Your task to perform on an android device: What's the latest news in space? Image 0: 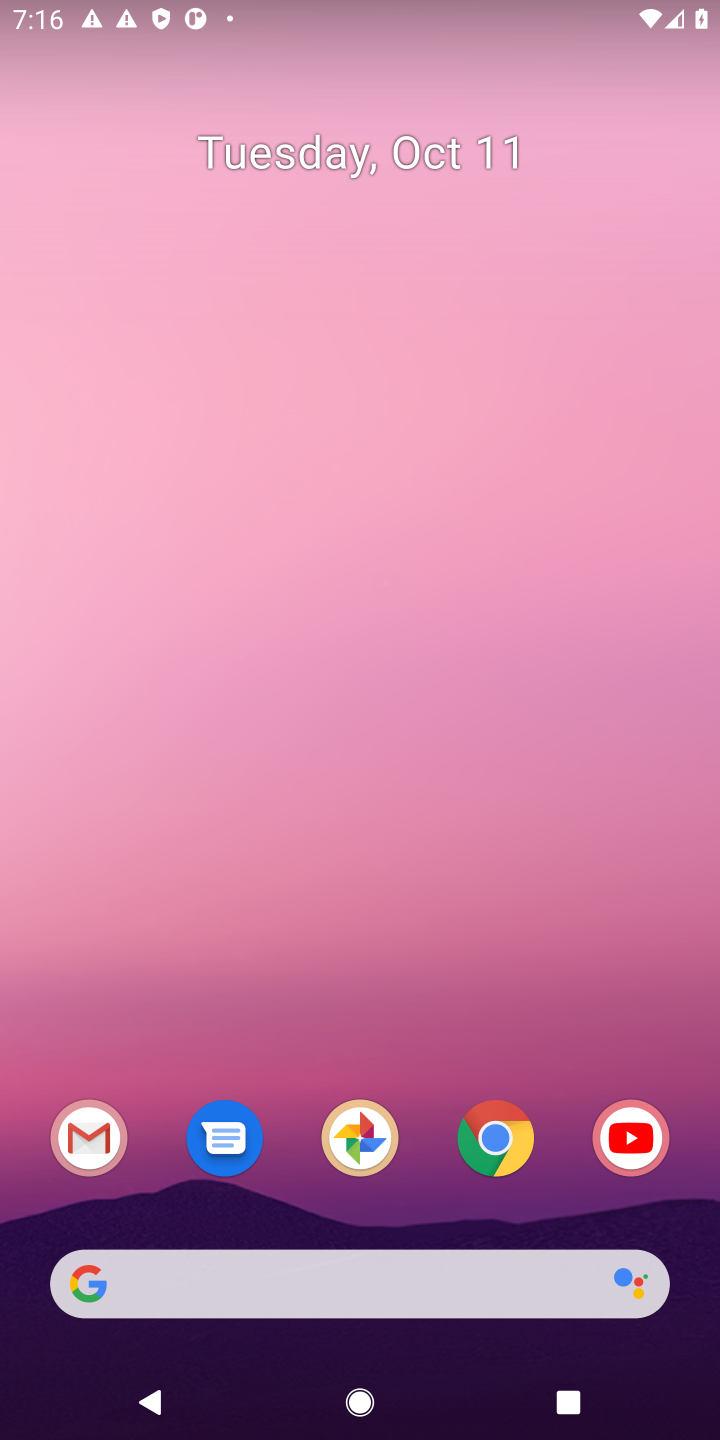
Step 0: click (196, 1291)
Your task to perform on an android device: What's the latest news in space? Image 1: 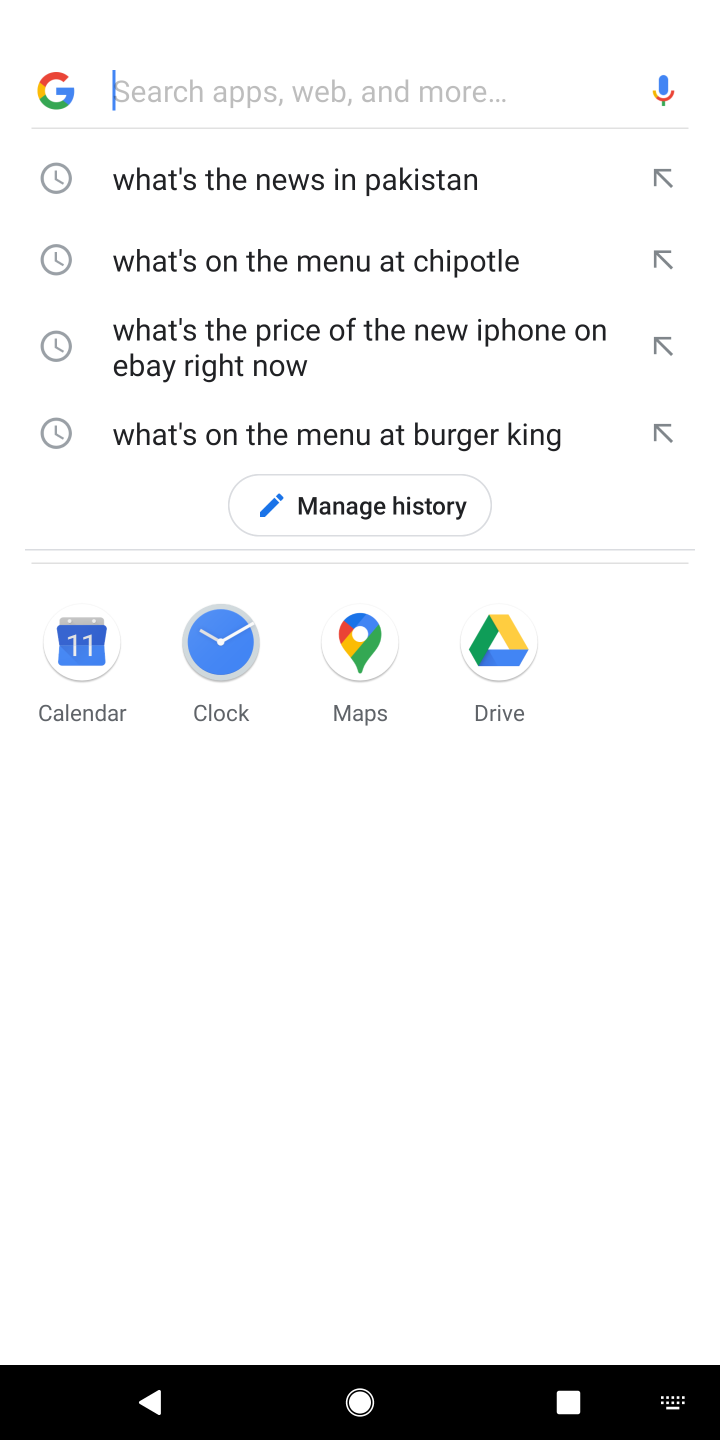
Step 1: type "What's the latest news in space?"
Your task to perform on an android device: What's the latest news in space? Image 2: 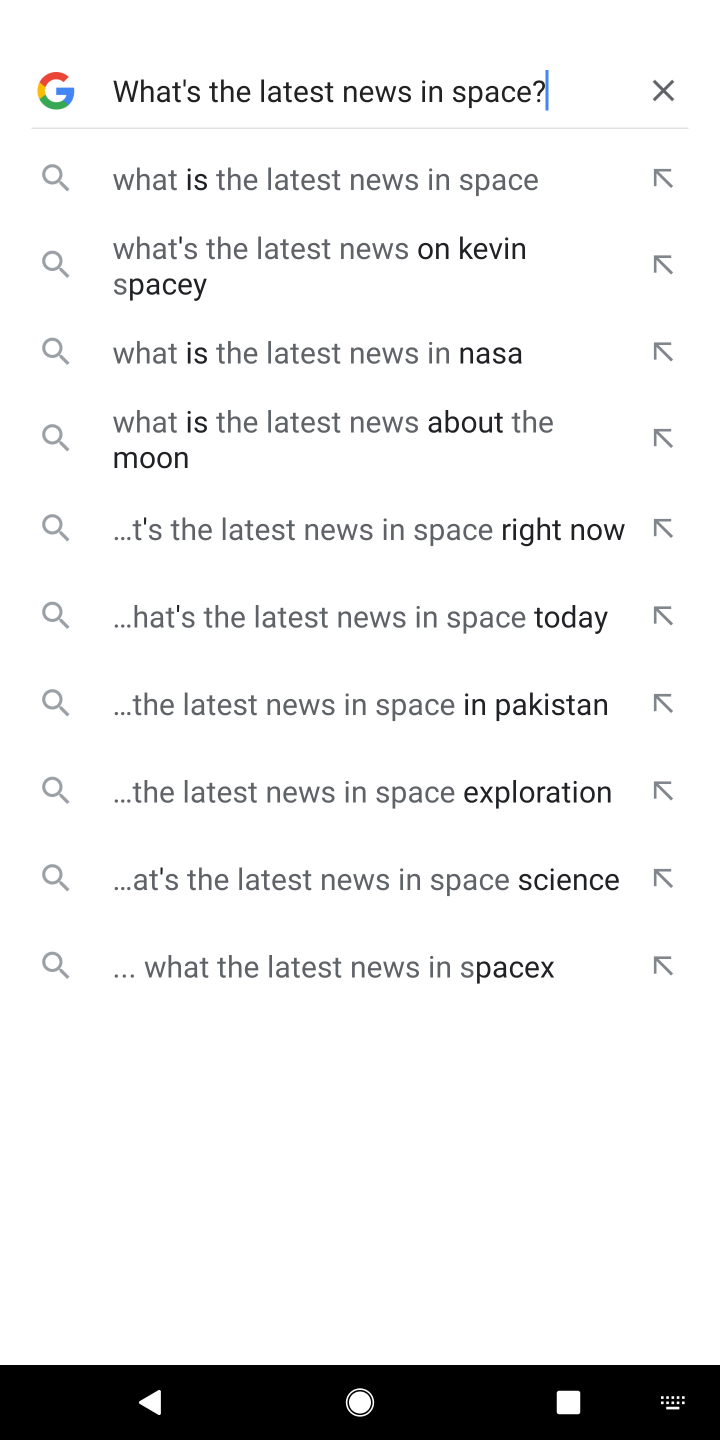
Step 2: click (235, 172)
Your task to perform on an android device: What's the latest news in space? Image 3: 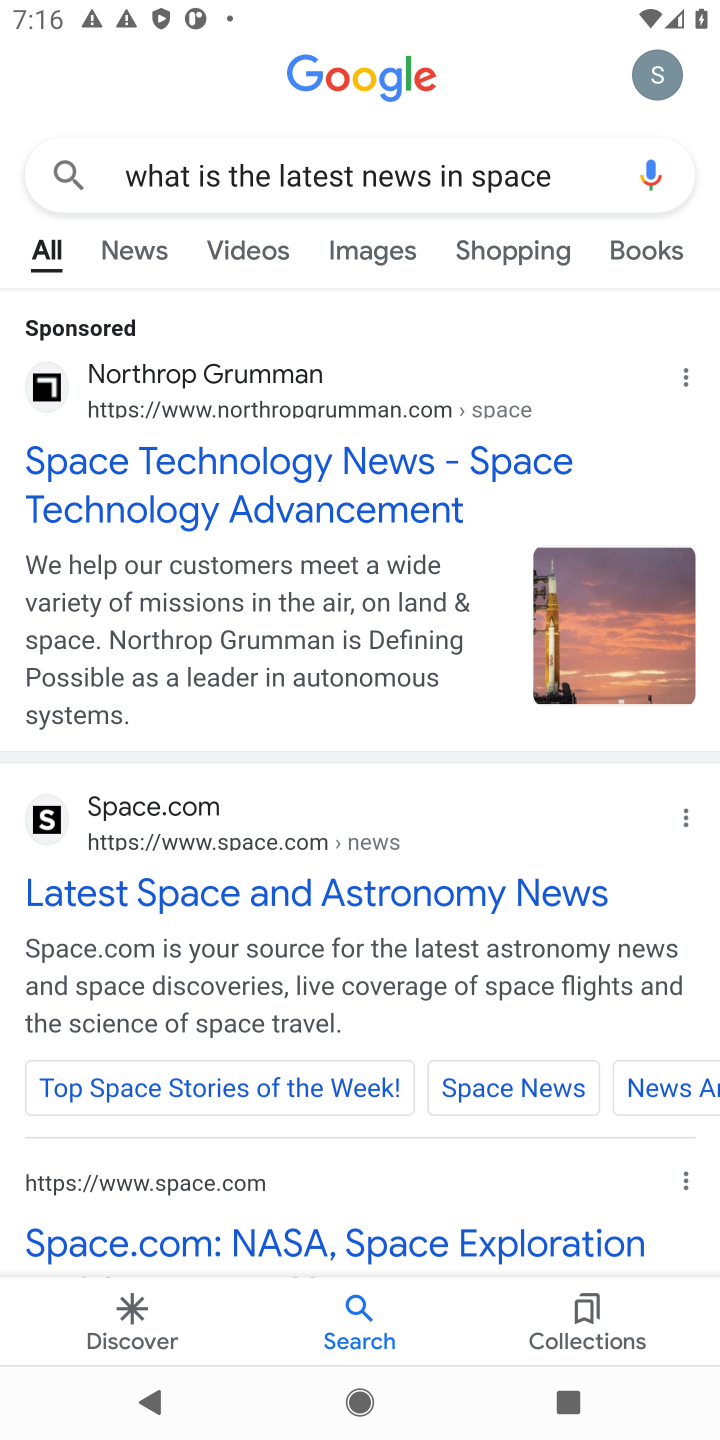
Step 3: click (241, 471)
Your task to perform on an android device: What's the latest news in space? Image 4: 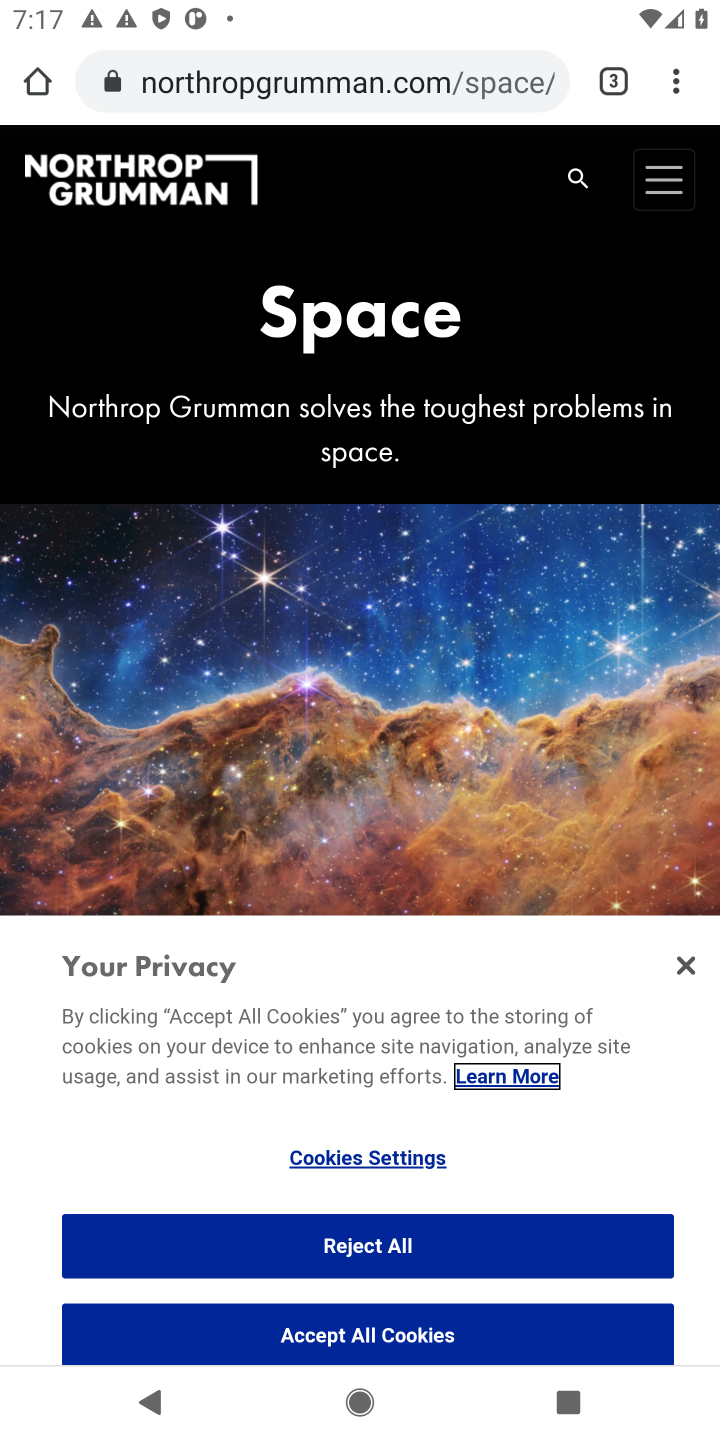
Step 4: click (300, 1334)
Your task to perform on an android device: What's the latest news in space? Image 5: 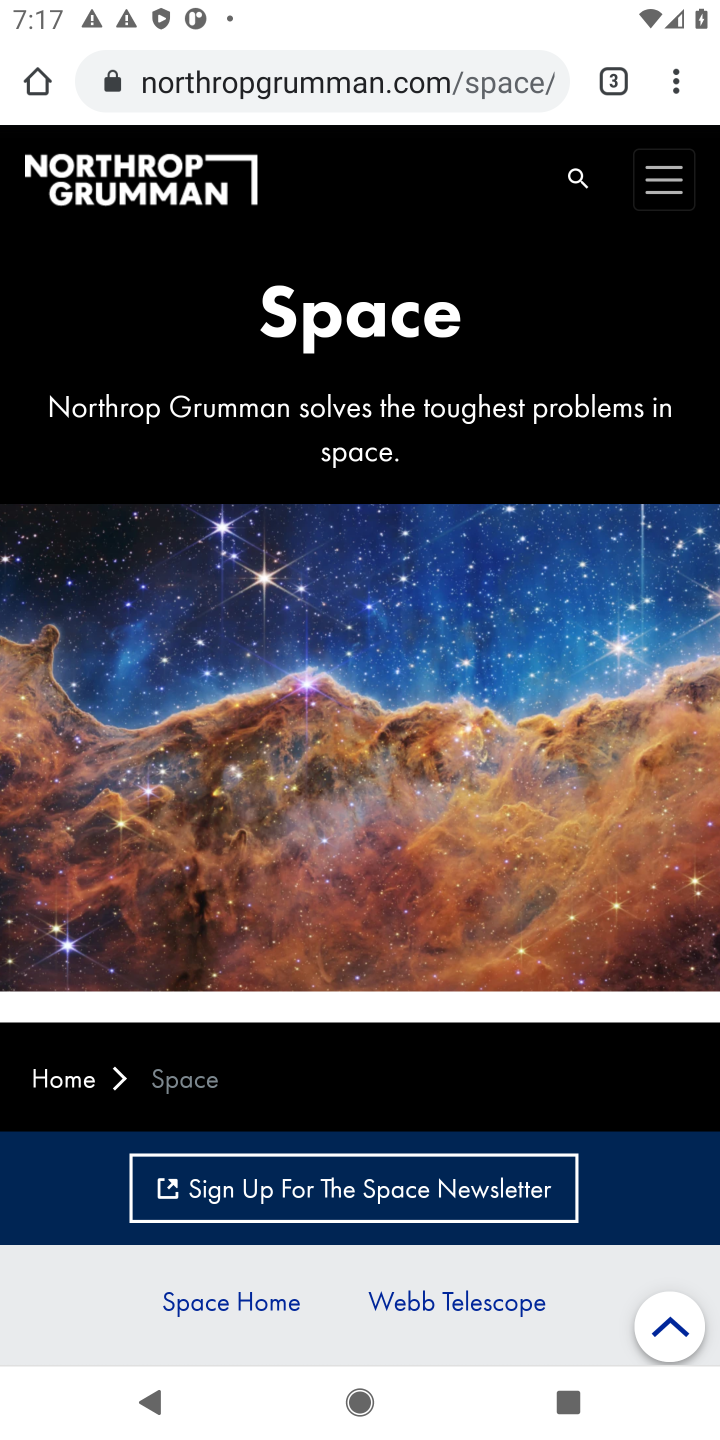
Step 5: drag from (348, 1050) to (316, 678)
Your task to perform on an android device: What's the latest news in space? Image 6: 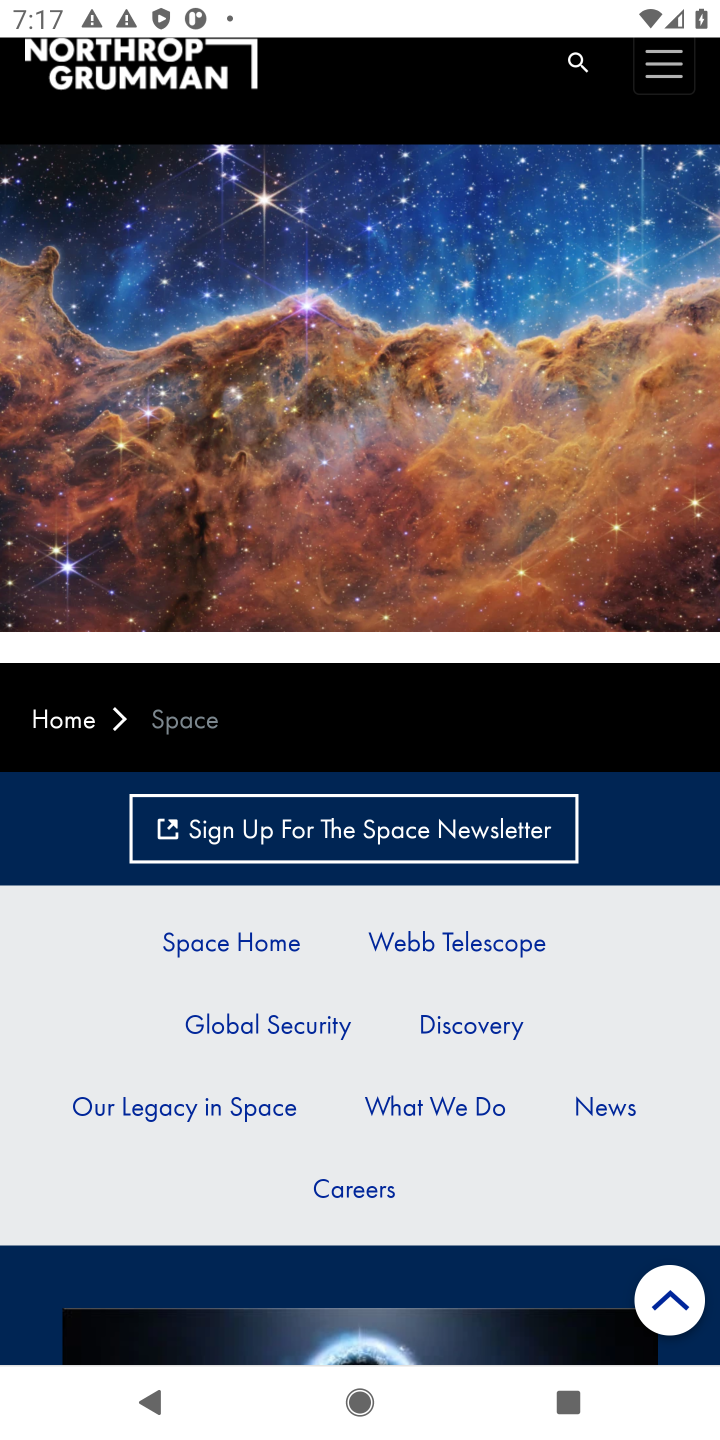
Step 6: drag from (322, 1064) to (322, 614)
Your task to perform on an android device: What's the latest news in space? Image 7: 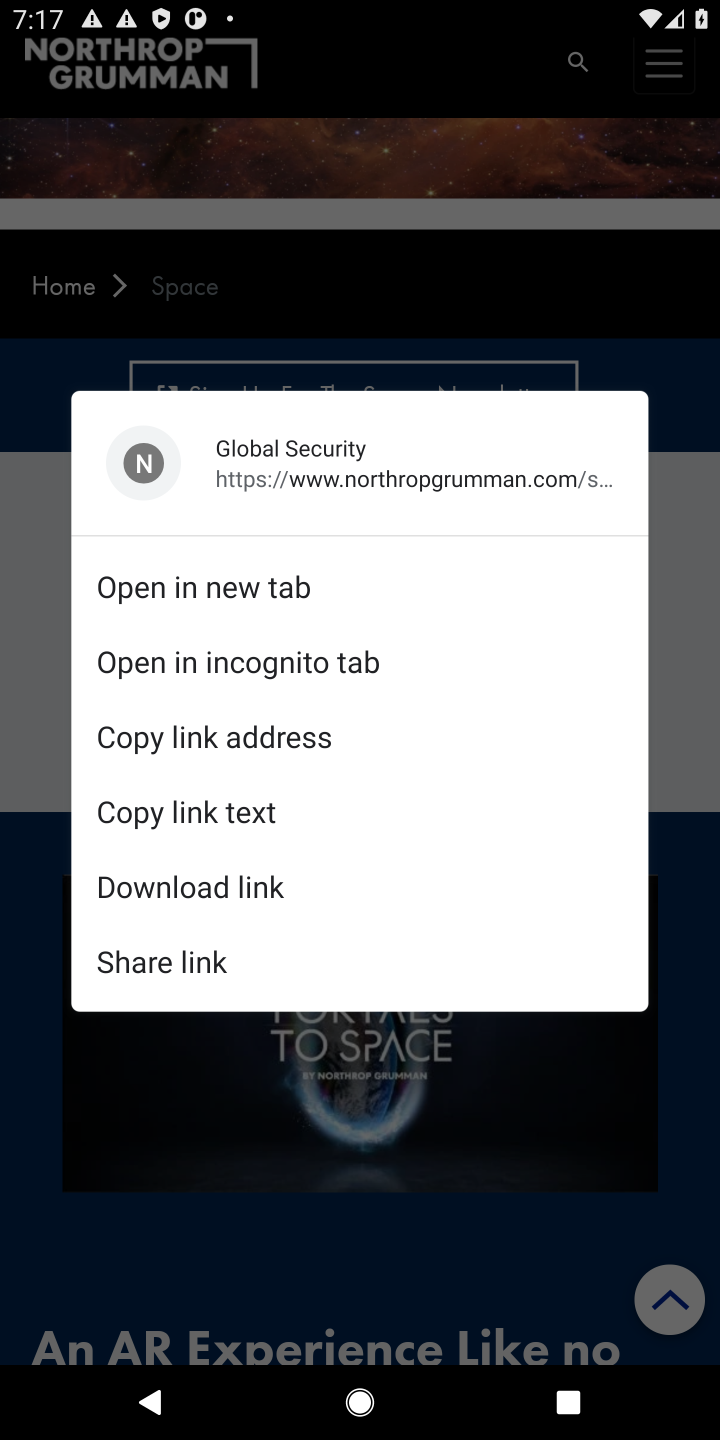
Step 7: click (517, 1075)
Your task to perform on an android device: What's the latest news in space? Image 8: 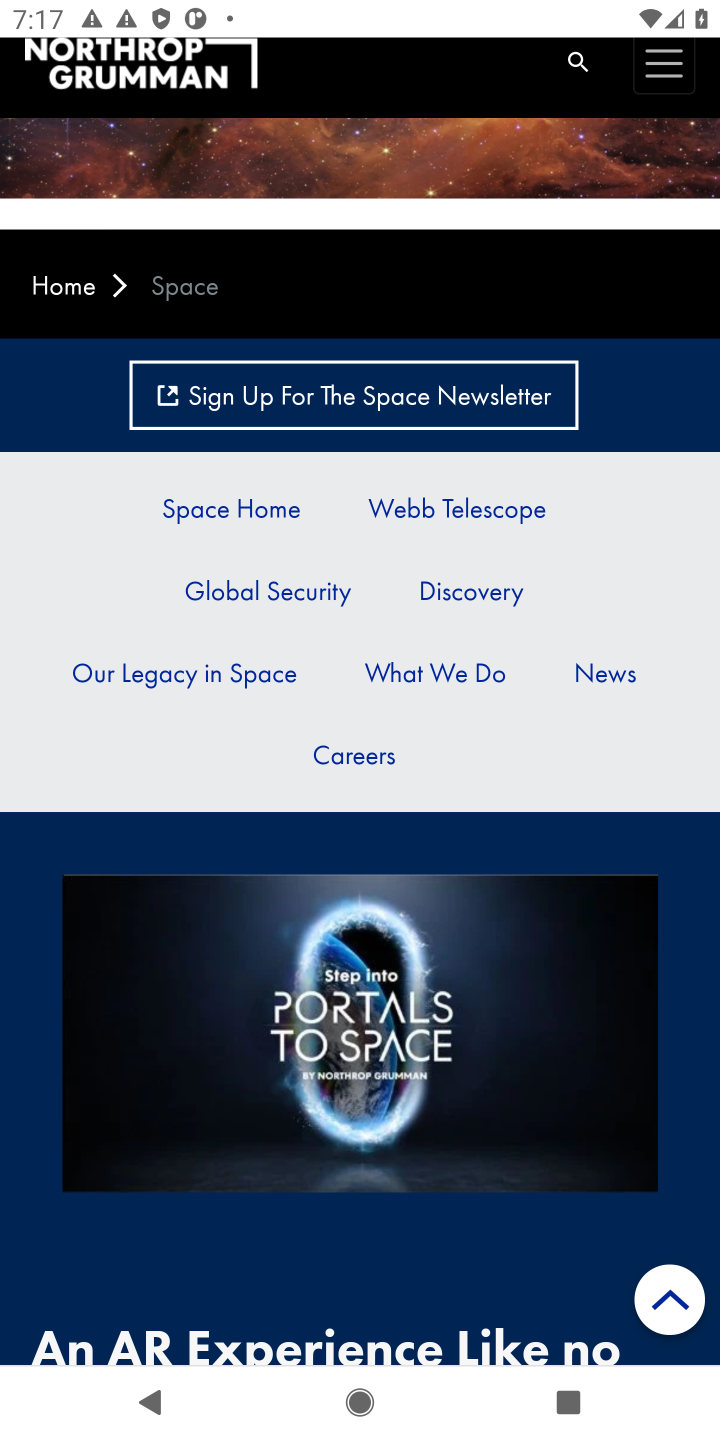
Step 8: drag from (477, 1050) to (375, 531)
Your task to perform on an android device: What's the latest news in space? Image 9: 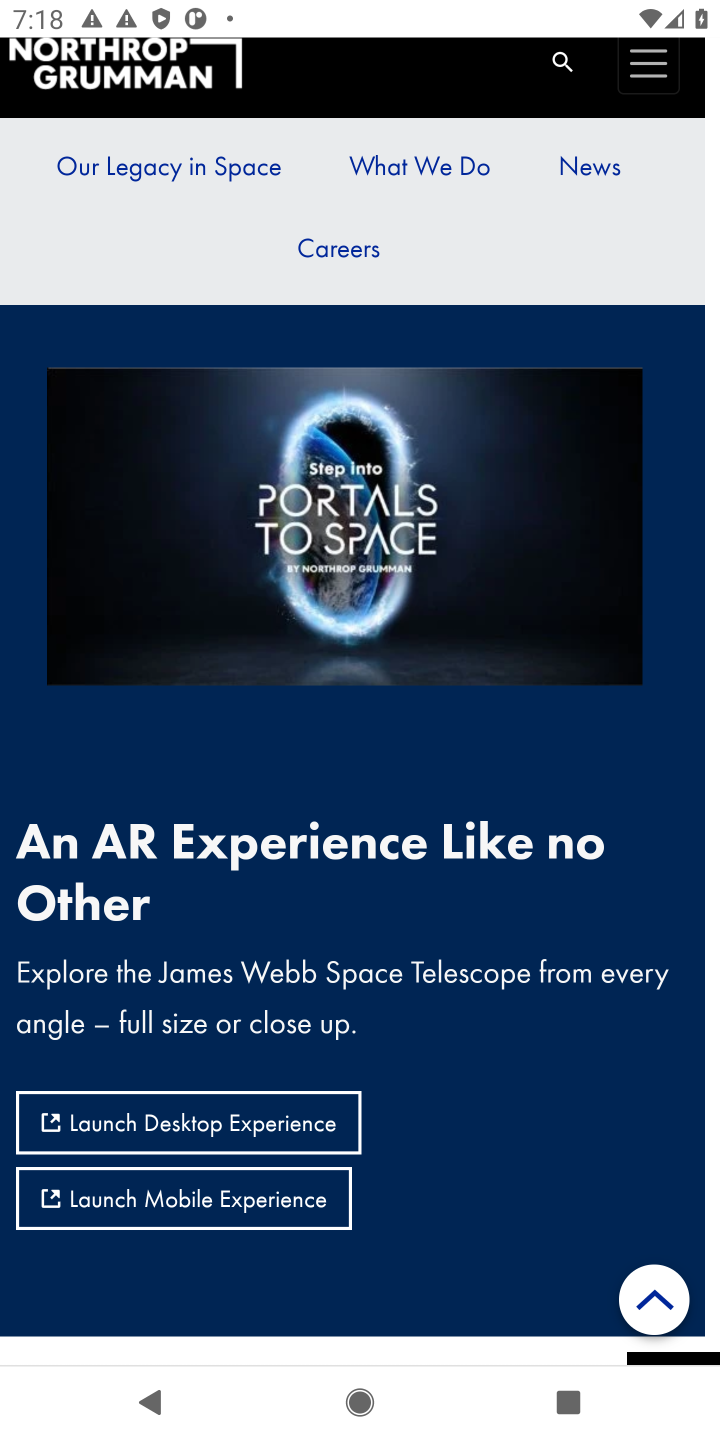
Step 9: drag from (524, 261) to (589, 686)
Your task to perform on an android device: What's the latest news in space? Image 10: 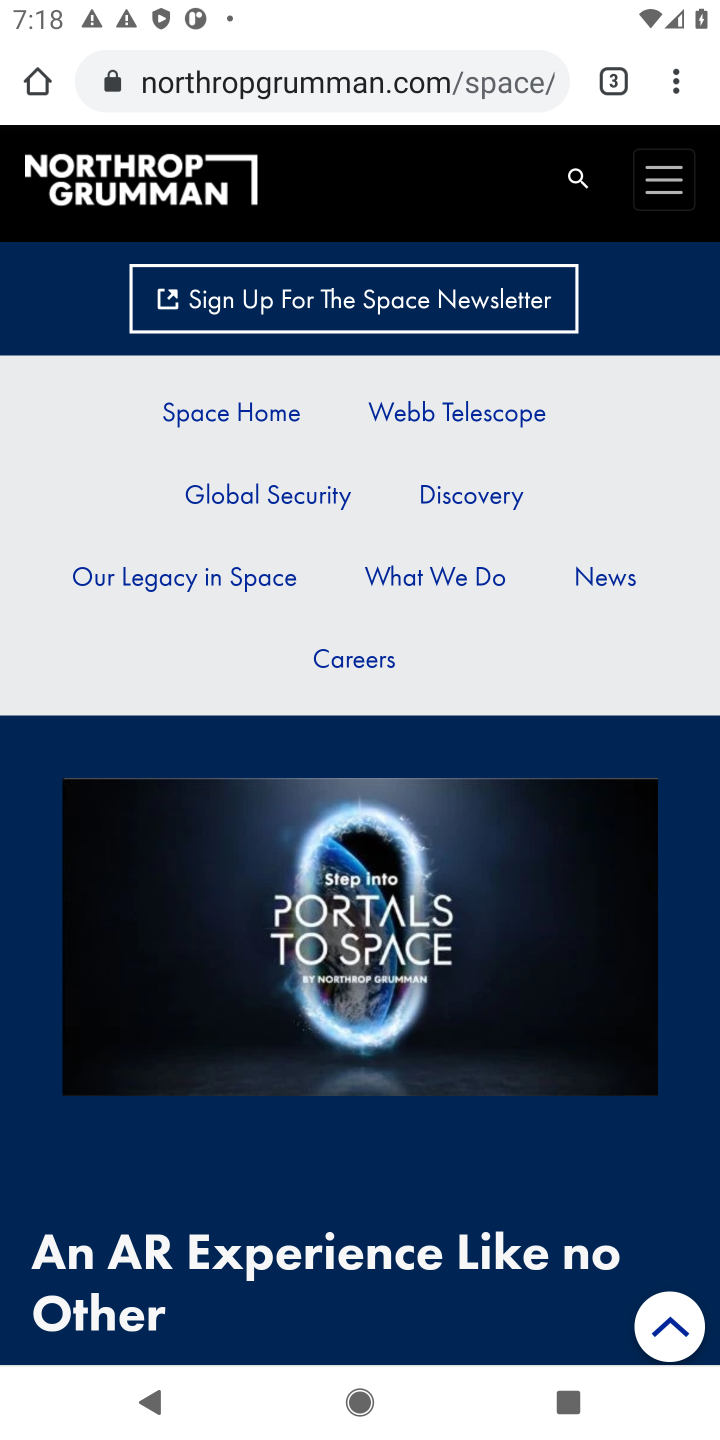
Step 10: drag from (543, 456) to (500, 909)
Your task to perform on an android device: What's the latest news in space? Image 11: 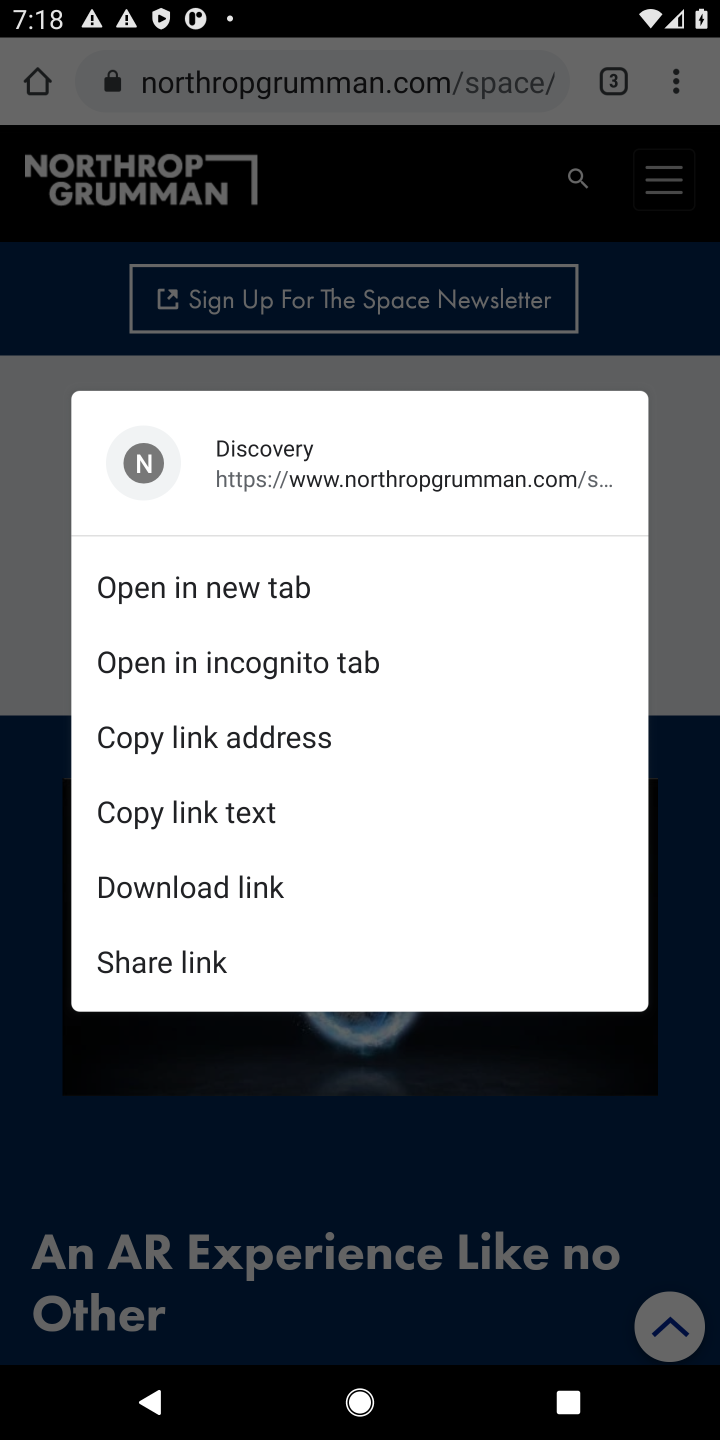
Step 11: click (679, 484)
Your task to perform on an android device: What's the latest news in space? Image 12: 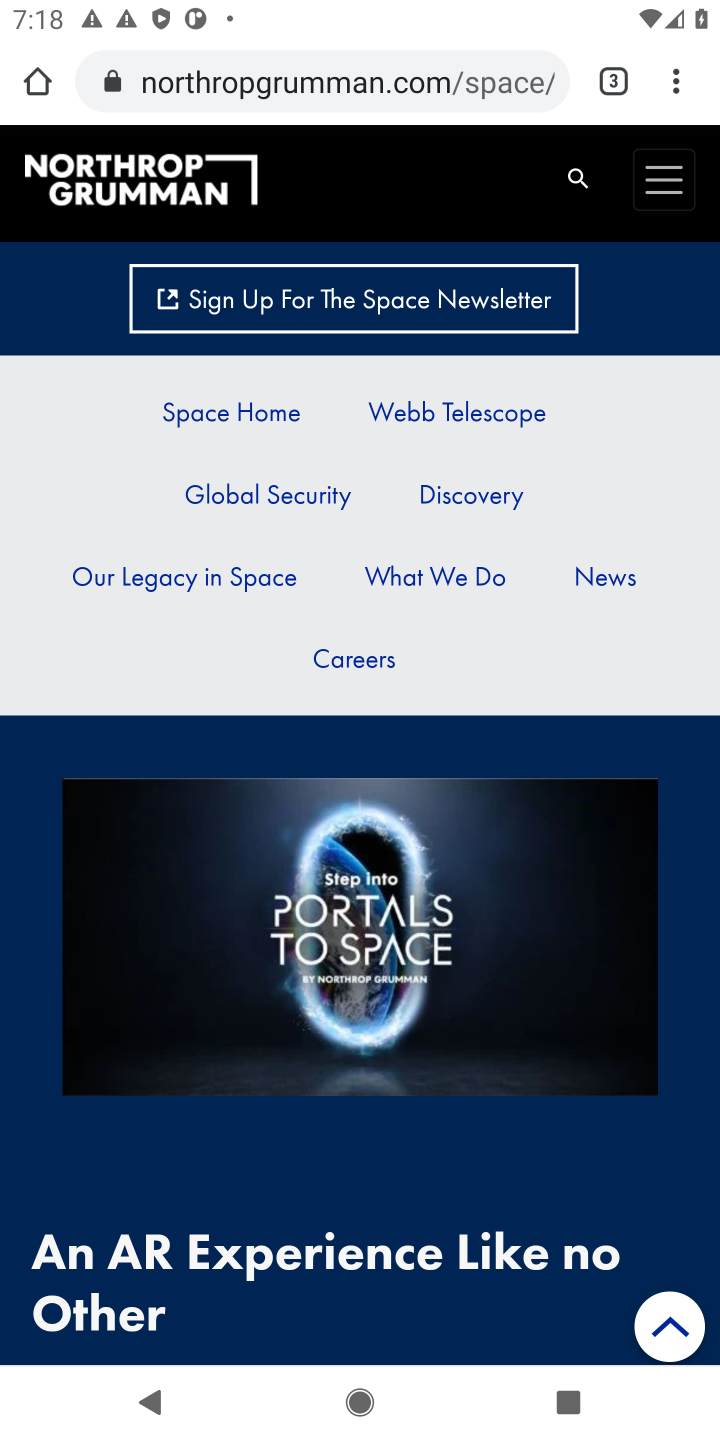
Step 12: task complete